Your task to perform on an android device: Go to ESPN.com Image 0: 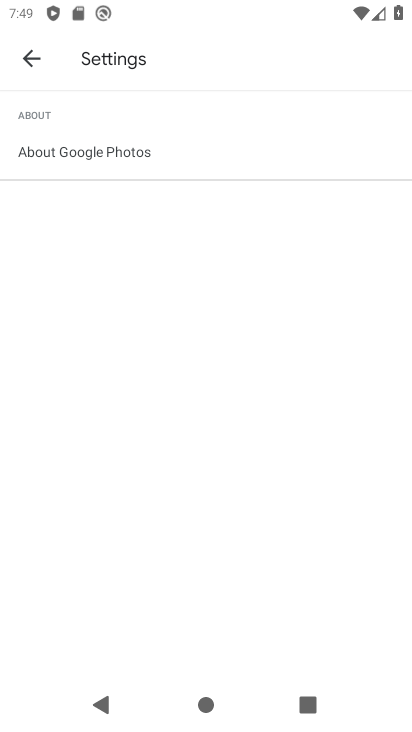
Step 0: press home button
Your task to perform on an android device: Go to ESPN.com Image 1: 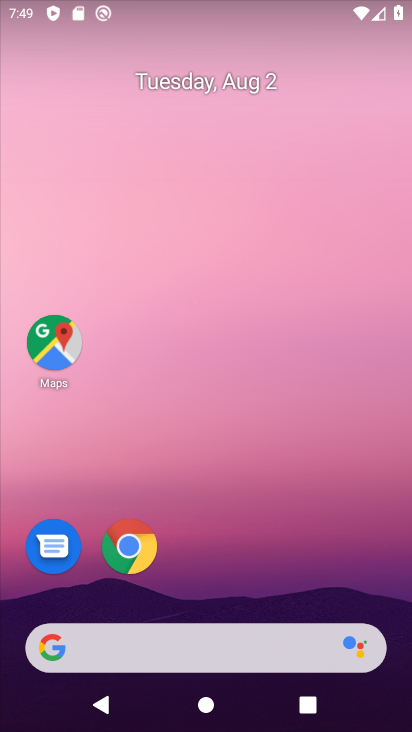
Step 1: drag from (204, 575) to (180, 64)
Your task to perform on an android device: Go to ESPN.com Image 2: 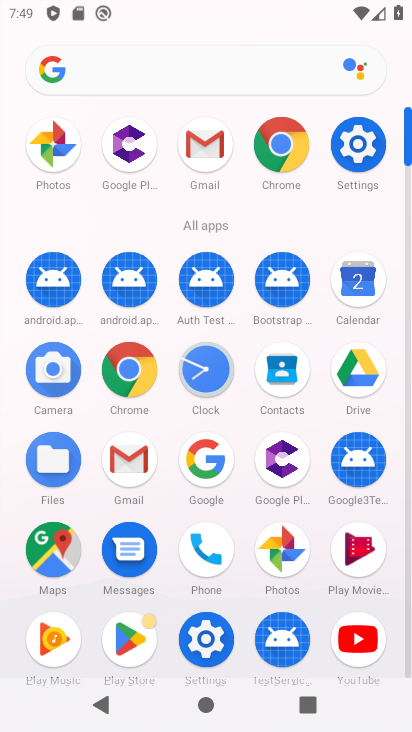
Step 2: click (281, 148)
Your task to perform on an android device: Go to ESPN.com Image 3: 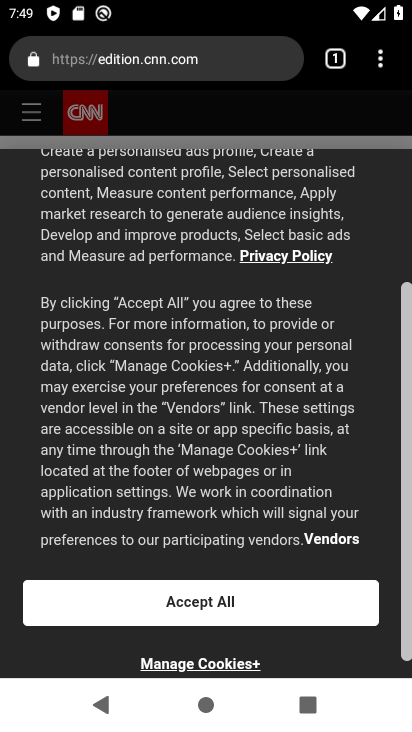
Step 3: click (207, 55)
Your task to perform on an android device: Go to ESPN.com Image 4: 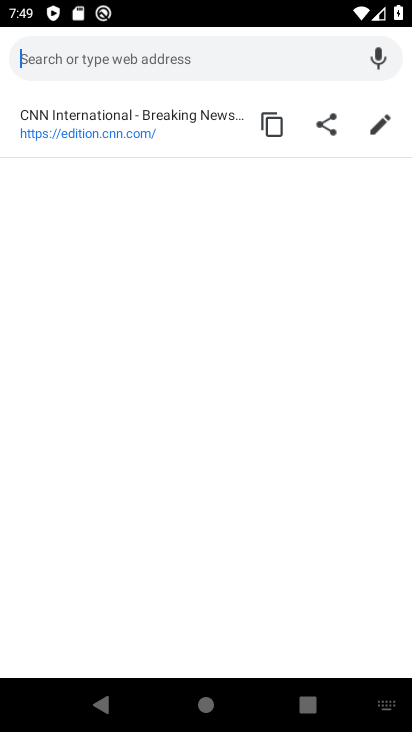
Step 4: type "ESPN.com"
Your task to perform on an android device: Go to ESPN.com Image 5: 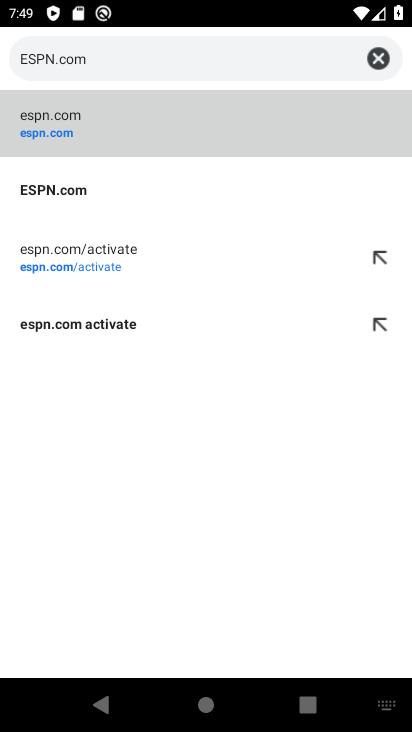
Step 5: click (205, 126)
Your task to perform on an android device: Go to ESPN.com Image 6: 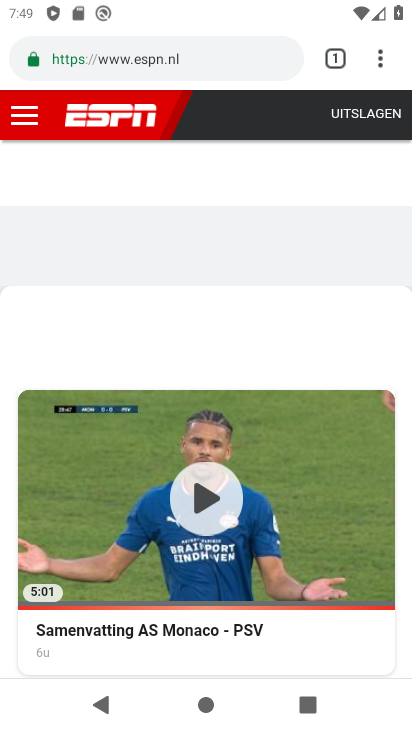
Step 6: task complete